Your task to perform on an android device: Is it going to rain tomorrow? Image 0: 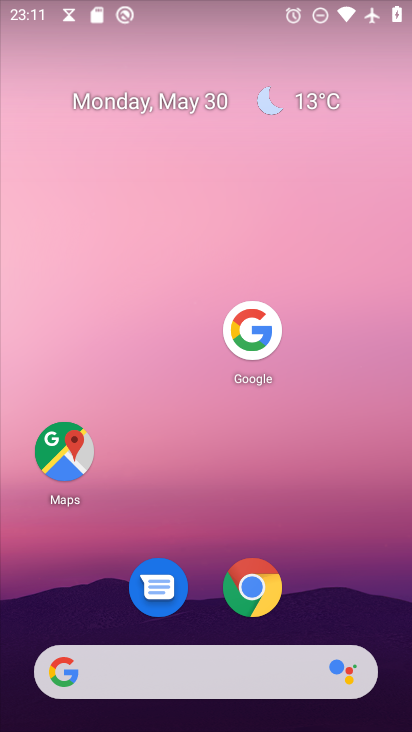
Step 0: click (294, 99)
Your task to perform on an android device: Is it going to rain tomorrow? Image 1: 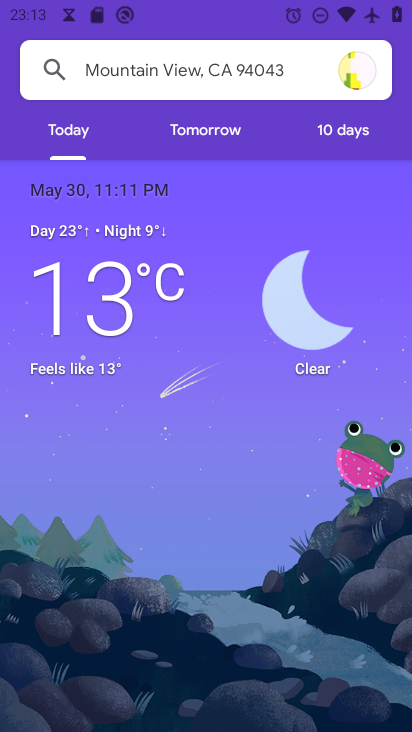
Step 1: click (180, 128)
Your task to perform on an android device: Is it going to rain tomorrow? Image 2: 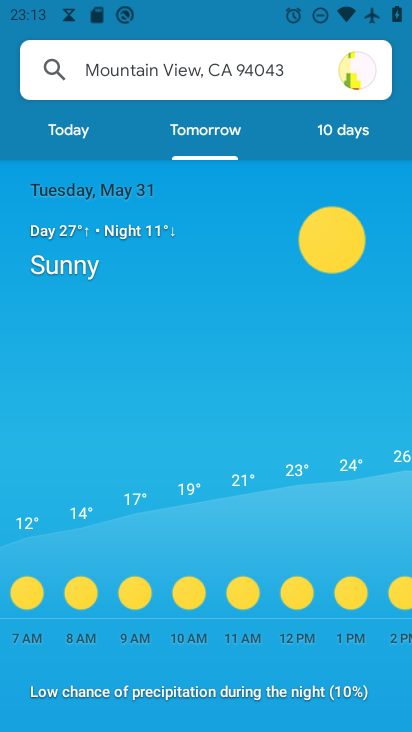
Step 2: task complete